Your task to perform on an android device: Search for sushi restaurants on Maps Image 0: 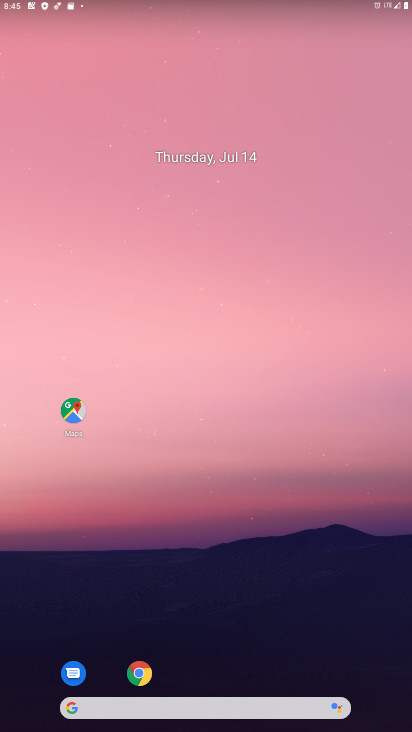
Step 0: click (70, 410)
Your task to perform on an android device: Search for sushi restaurants on Maps Image 1: 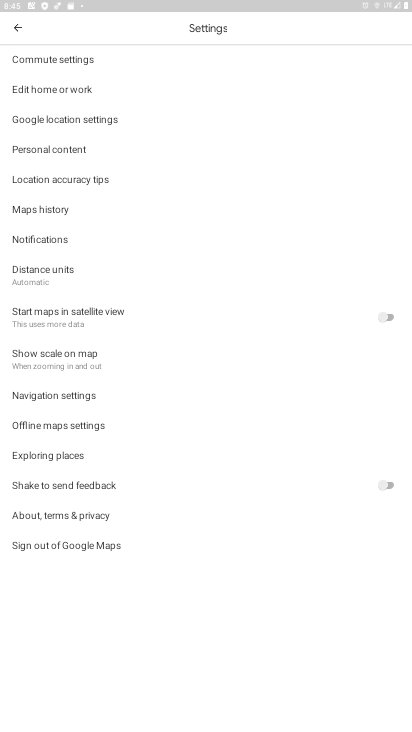
Step 1: press back button
Your task to perform on an android device: Search for sushi restaurants on Maps Image 2: 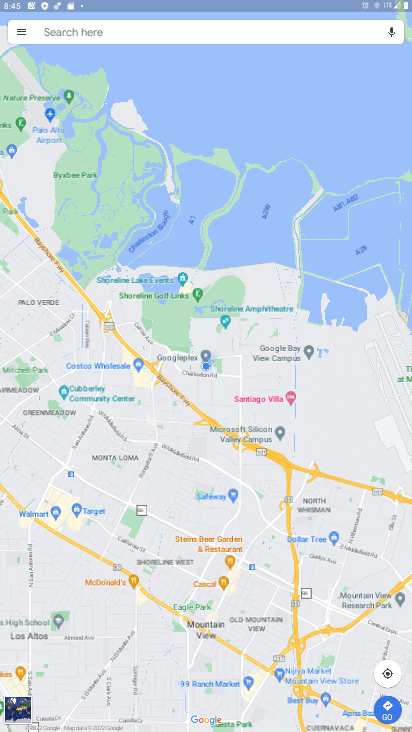
Step 2: click (134, 37)
Your task to perform on an android device: Search for sushi restaurants on Maps Image 3: 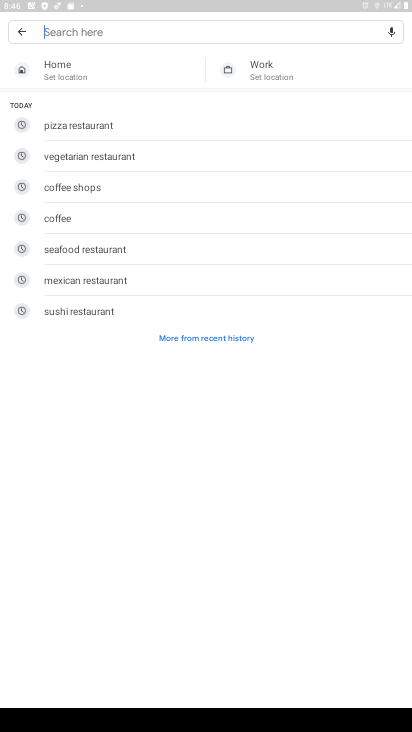
Step 3: type "sushi restaurants"
Your task to perform on an android device: Search for sushi restaurants on Maps Image 4: 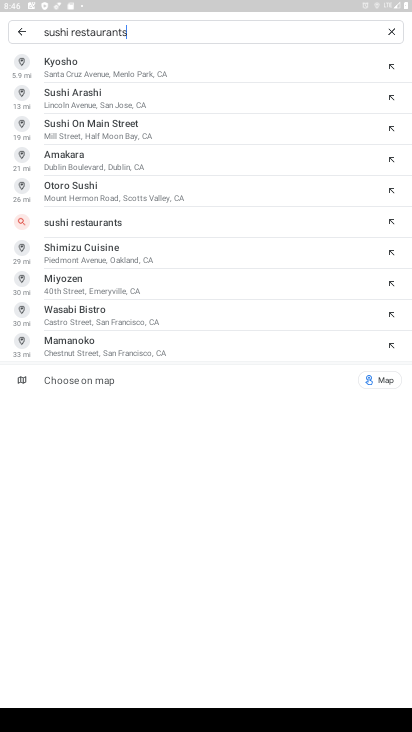
Step 4: click (59, 222)
Your task to perform on an android device: Search for sushi restaurants on Maps Image 5: 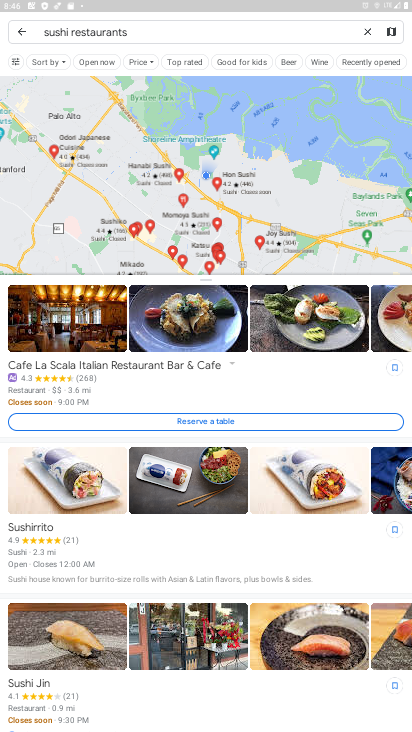
Step 5: task complete